Your task to perform on an android device: Do I have any events this weekend? Image 0: 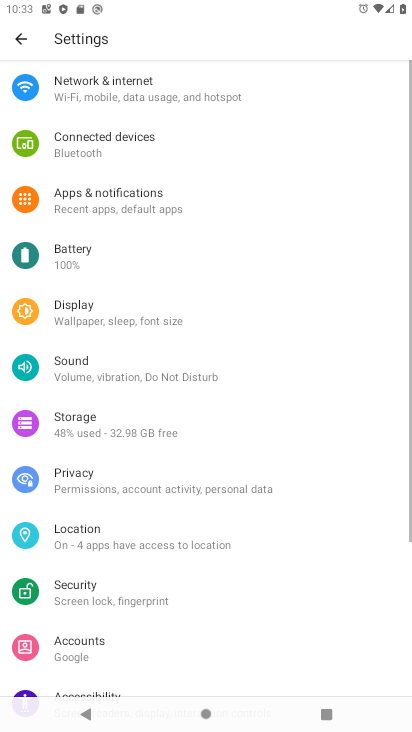
Step 0: press home button
Your task to perform on an android device: Do I have any events this weekend? Image 1: 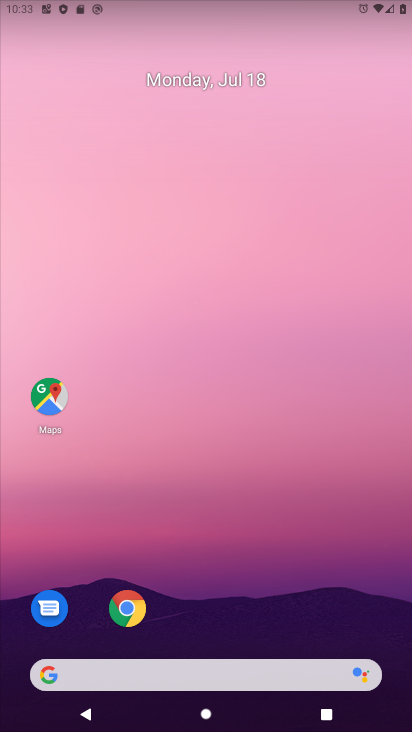
Step 1: drag from (109, 545) to (284, 47)
Your task to perform on an android device: Do I have any events this weekend? Image 2: 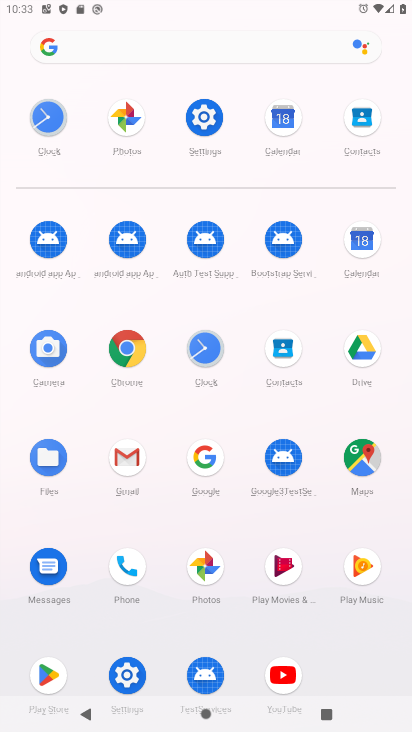
Step 2: click (356, 246)
Your task to perform on an android device: Do I have any events this weekend? Image 3: 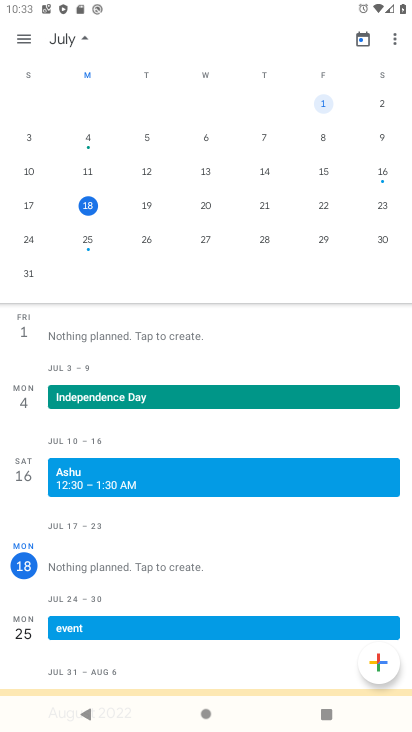
Step 3: task complete